Your task to perform on an android device: toggle airplane mode Image 0: 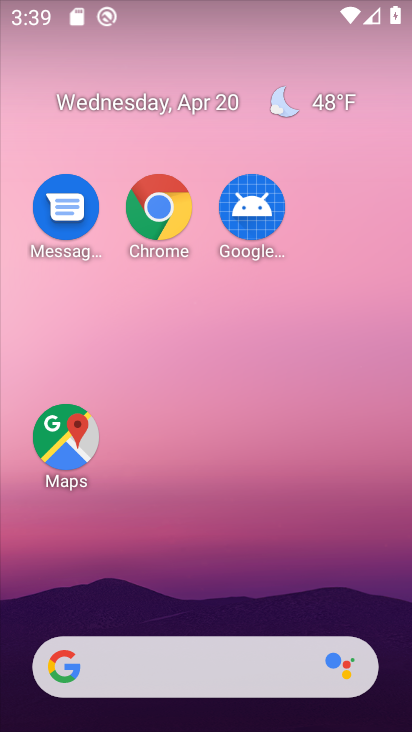
Step 0: drag from (222, 542) to (301, 153)
Your task to perform on an android device: toggle airplane mode Image 1: 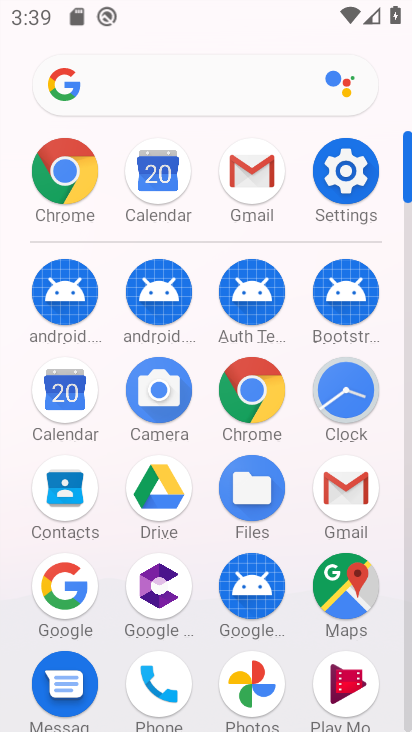
Step 1: click (347, 179)
Your task to perform on an android device: toggle airplane mode Image 2: 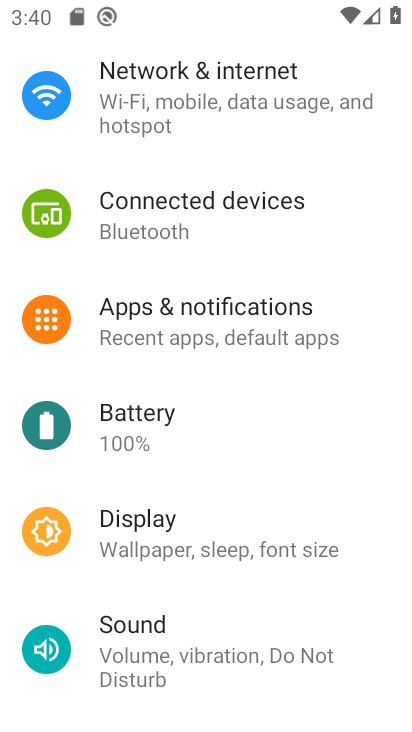
Step 2: drag from (346, 180) to (315, 589)
Your task to perform on an android device: toggle airplane mode Image 3: 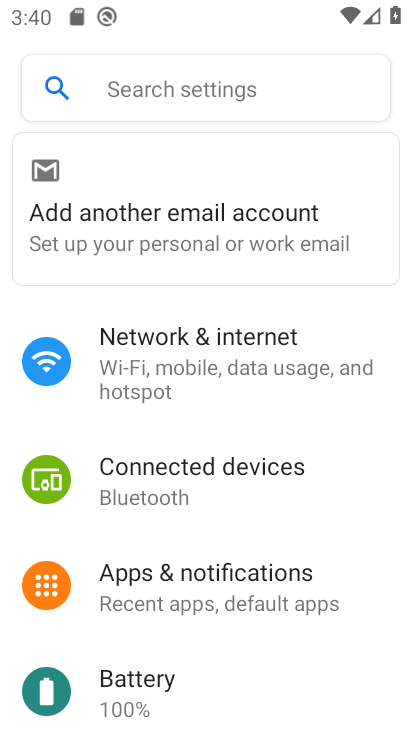
Step 3: click (265, 362)
Your task to perform on an android device: toggle airplane mode Image 4: 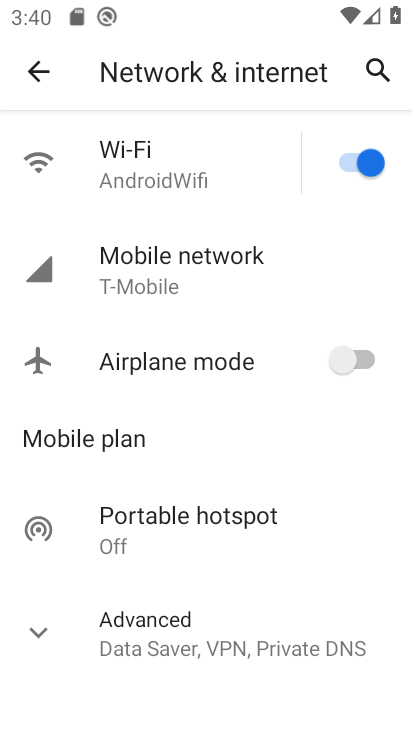
Step 4: click (281, 361)
Your task to perform on an android device: toggle airplane mode Image 5: 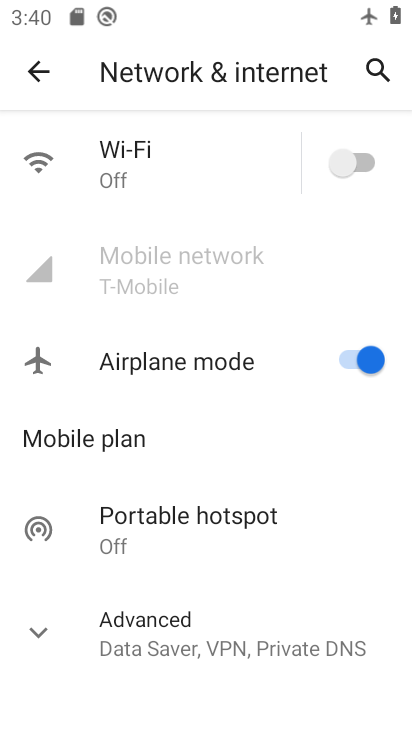
Step 5: task complete